Your task to perform on an android device: visit the assistant section in the google photos Image 0: 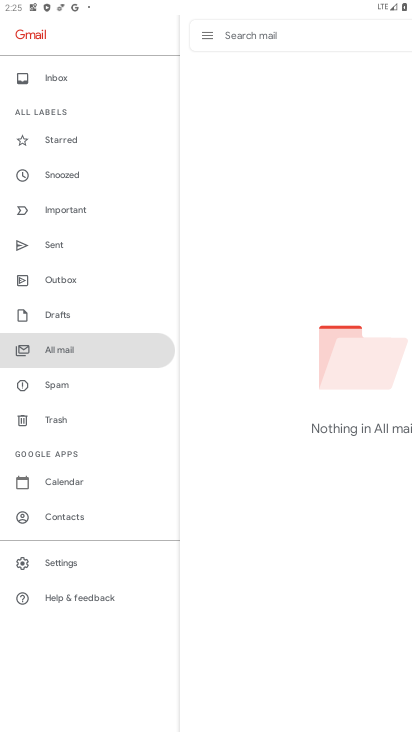
Step 0: press home button
Your task to perform on an android device: visit the assistant section in the google photos Image 1: 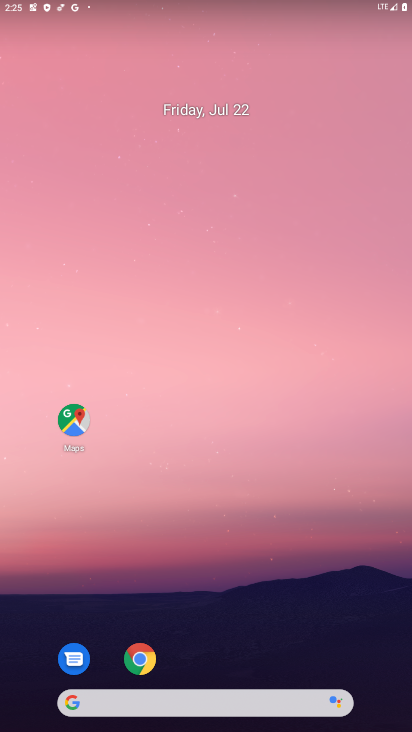
Step 1: drag from (163, 253) to (152, 8)
Your task to perform on an android device: visit the assistant section in the google photos Image 2: 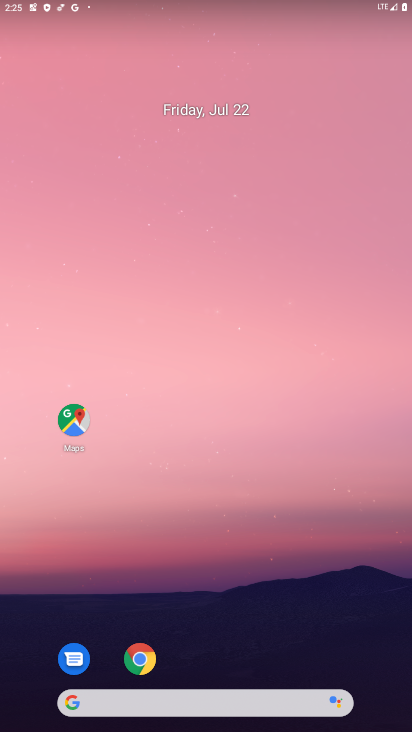
Step 2: click (188, 273)
Your task to perform on an android device: visit the assistant section in the google photos Image 3: 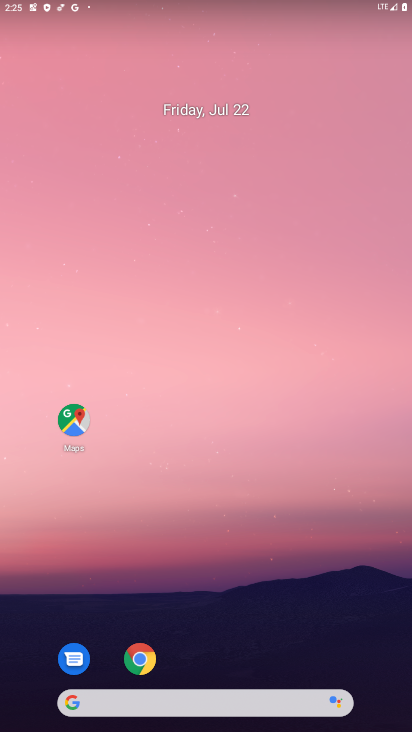
Step 3: click (225, 9)
Your task to perform on an android device: visit the assistant section in the google photos Image 4: 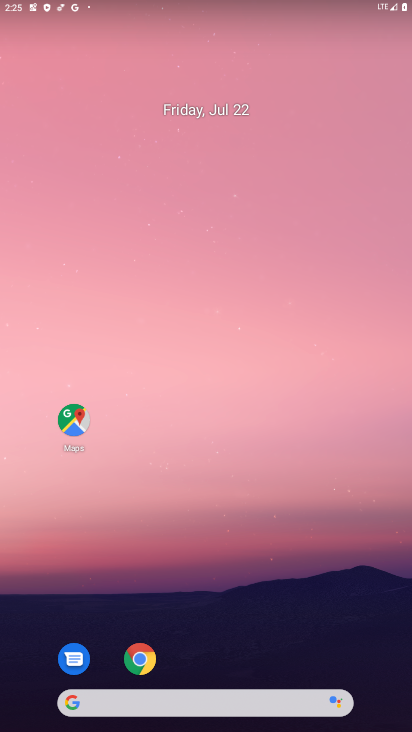
Step 4: drag from (209, 160) to (209, 78)
Your task to perform on an android device: visit the assistant section in the google photos Image 5: 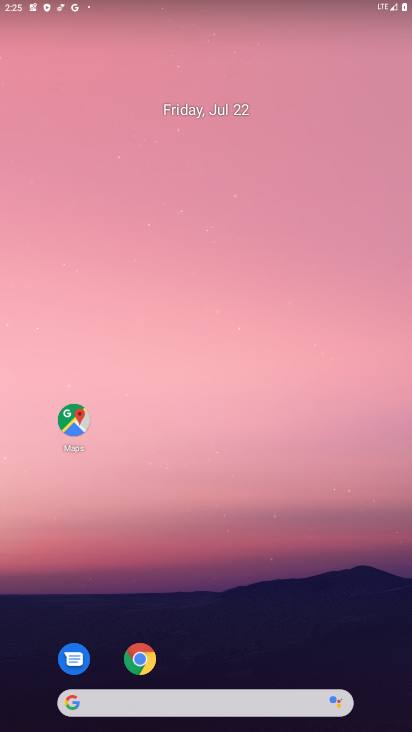
Step 5: drag from (208, 629) to (241, 179)
Your task to perform on an android device: visit the assistant section in the google photos Image 6: 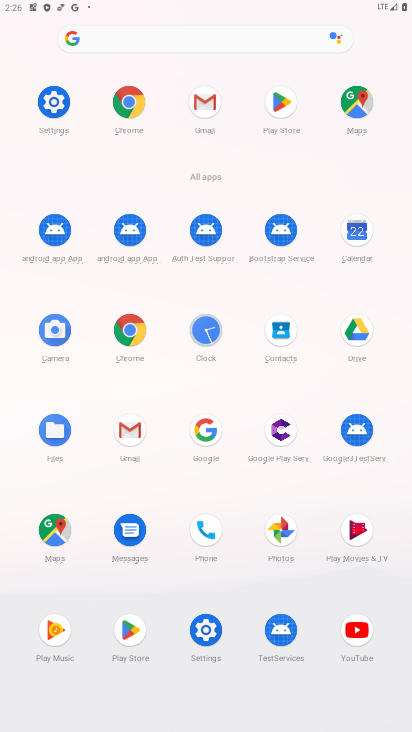
Step 6: click (288, 520)
Your task to perform on an android device: visit the assistant section in the google photos Image 7: 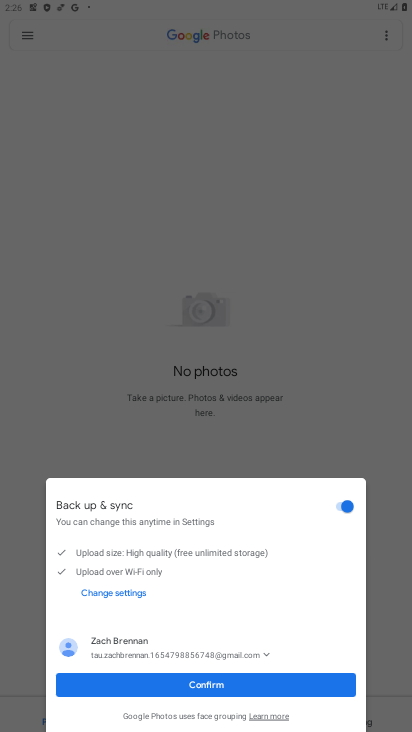
Step 7: drag from (254, 564) to (190, 679)
Your task to perform on an android device: visit the assistant section in the google photos Image 8: 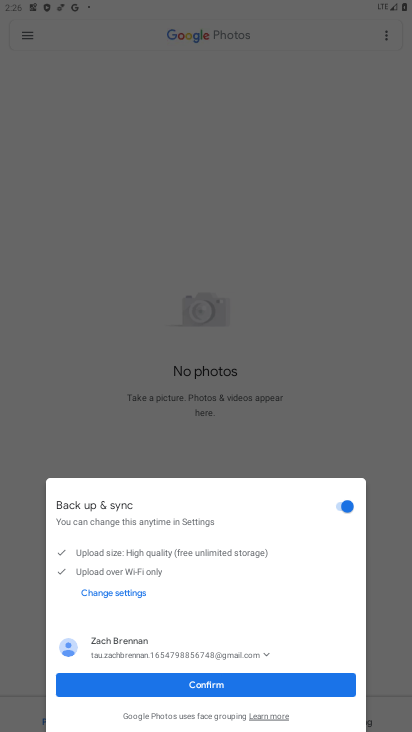
Step 8: click (190, 679)
Your task to perform on an android device: visit the assistant section in the google photos Image 9: 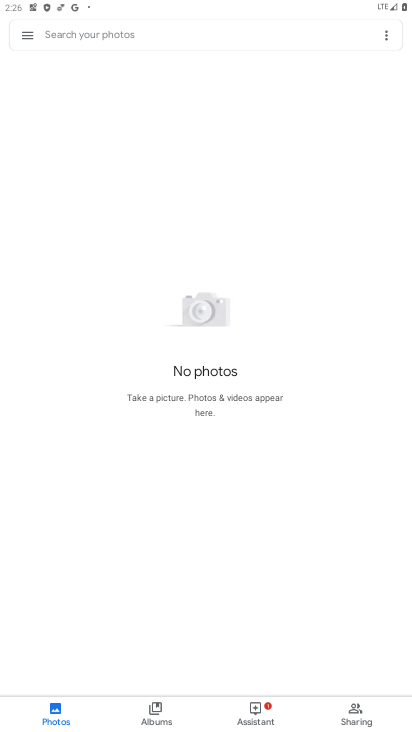
Step 9: click (251, 704)
Your task to perform on an android device: visit the assistant section in the google photos Image 10: 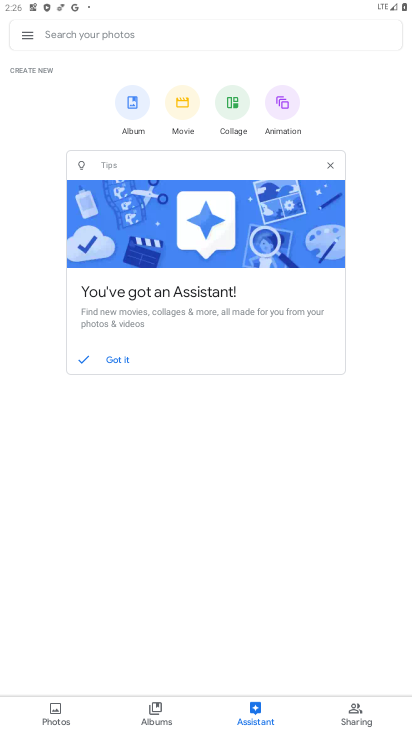
Step 10: task complete